Your task to perform on an android device: install app "Flipkart Online Shopping App" Image 0: 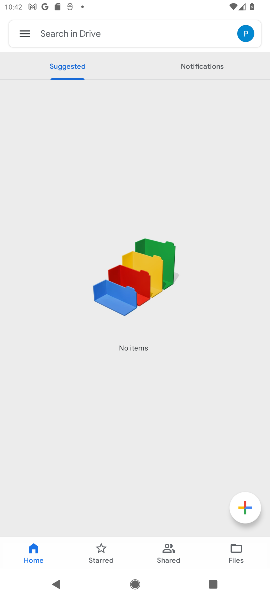
Step 0: task complete